Your task to perform on an android device: open app "Facebook Lite" (install if not already installed) Image 0: 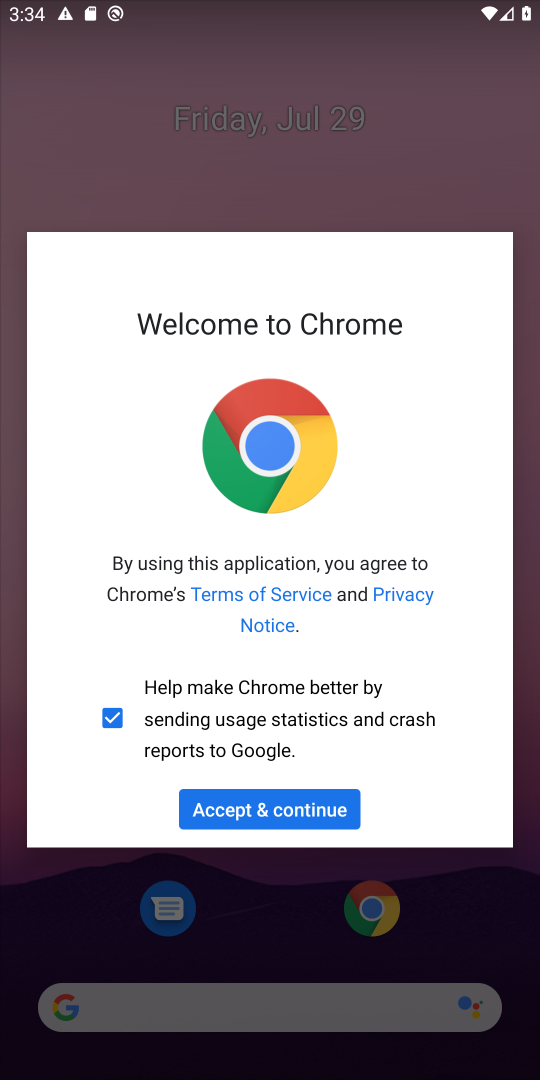
Step 0: press home button
Your task to perform on an android device: open app "Facebook Lite" (install if not already installed) Image 1: 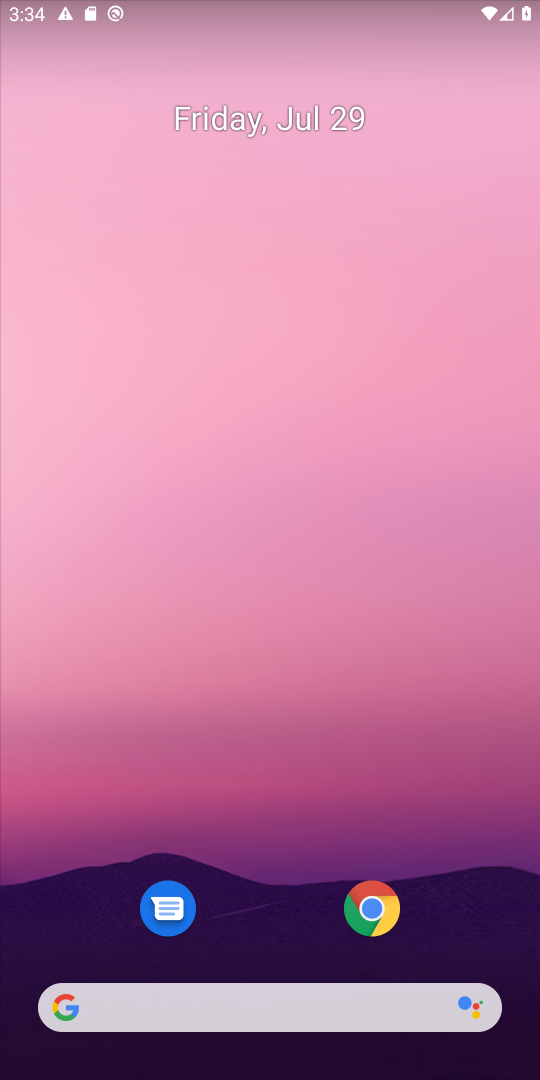
Step 1: drag from (296, 927) to (287, 218)
Your task to perform on an android device: open app "Facebook Lite" (install if not already installed) Image 2: 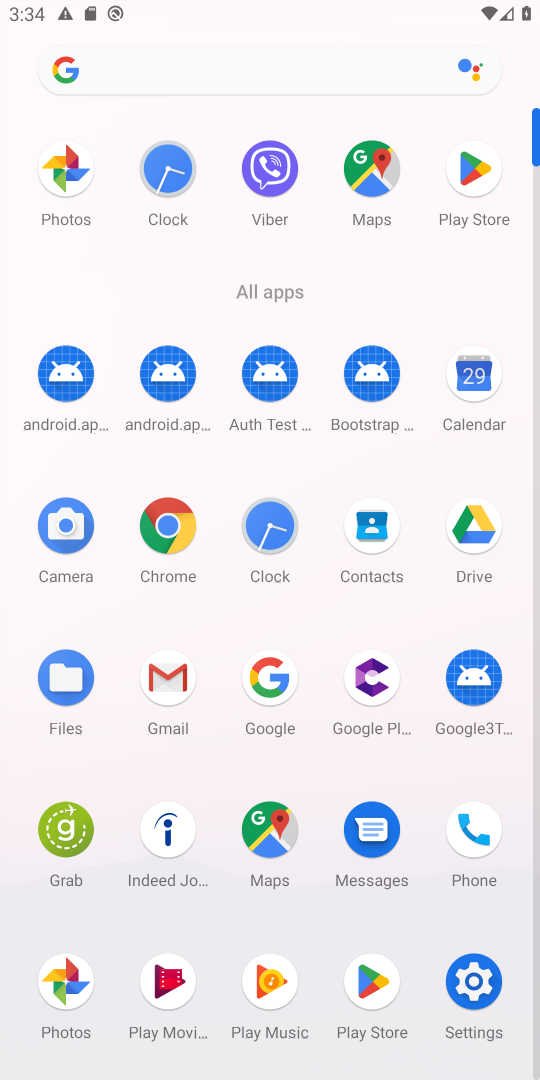
Step 2: click (363, 976)
Your task to perform on an android device: open app "Facebook Lite" (install if not already installed) Image 3: 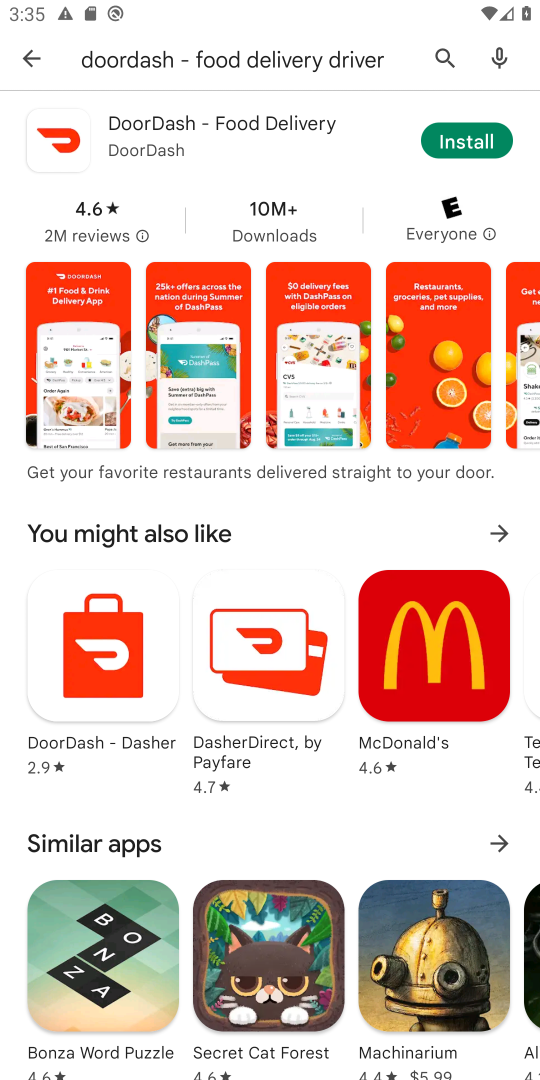
Step 3: click (433, 48)
Your task to perform on an android device: open app "Facebook Lite" (install if not already installed) Image 4: 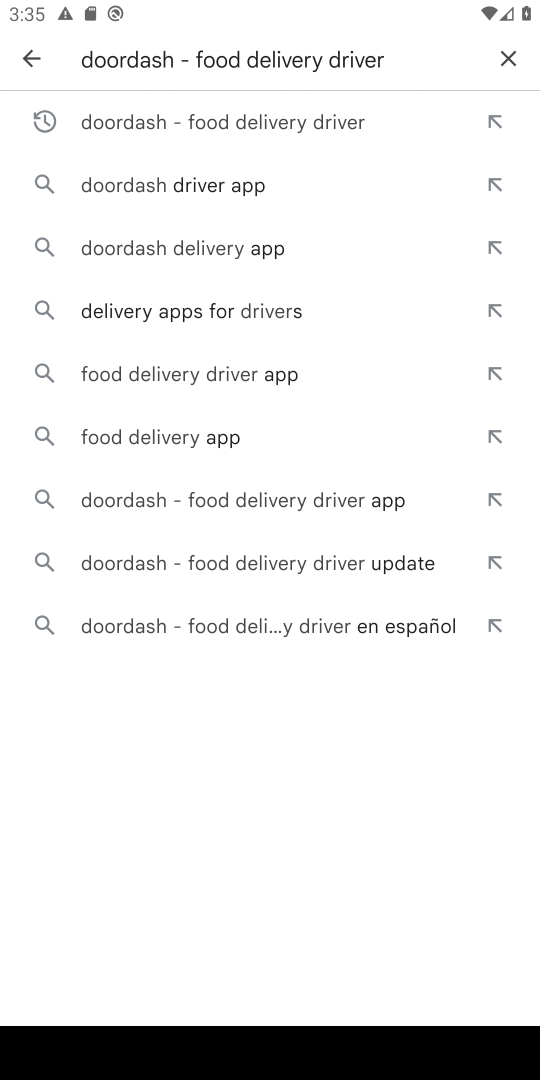
Step 4: click (505, 65)
Your task to perform on an android device: open app "Facebook Lite" (install if not already installed) Image 5: 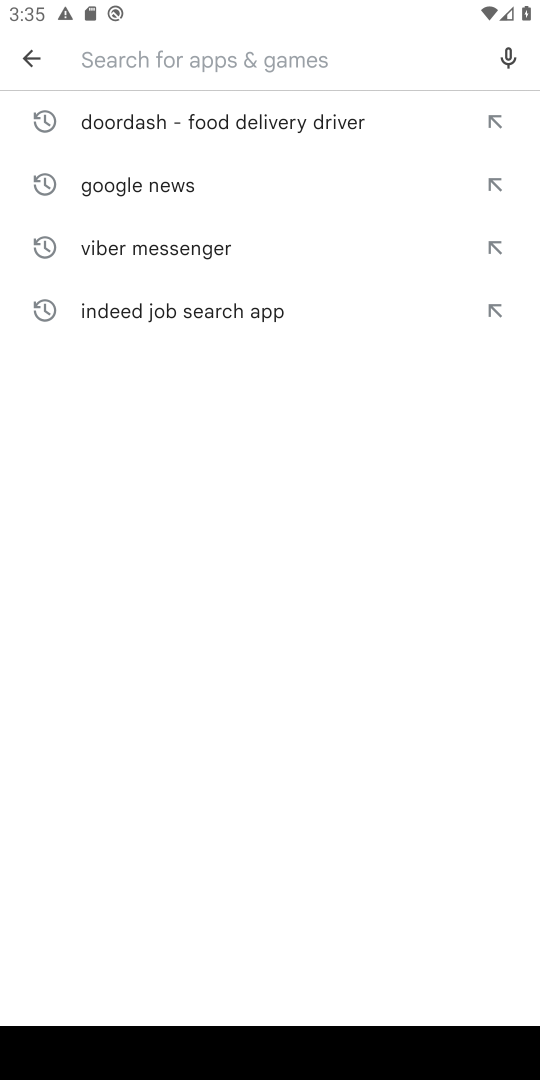
Step 5: type "Facebook Lite"
Your task to perform on an android device: open app "Facebook Lite" (install if not already installed) Image 6: 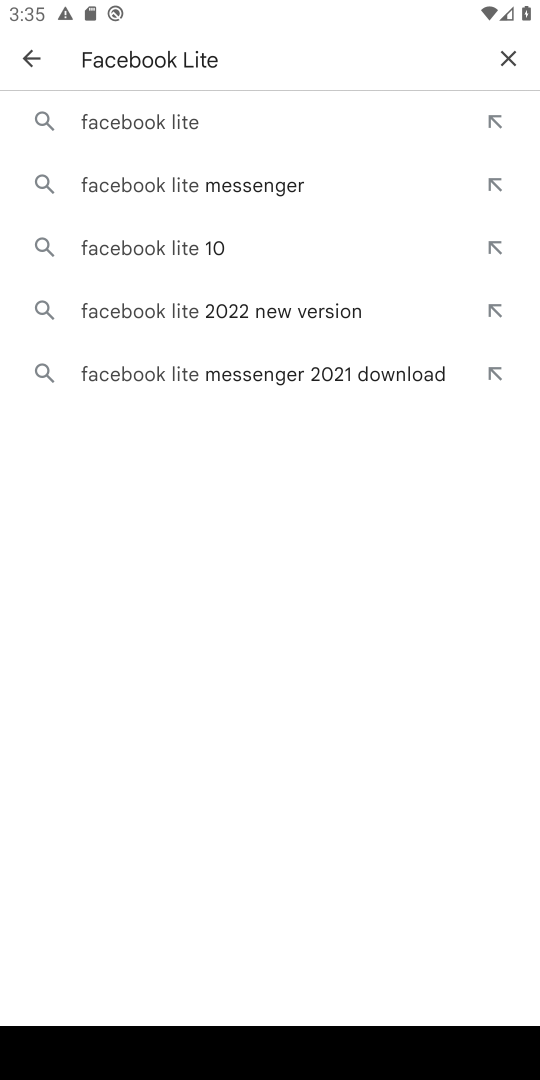
Step 6: click (177, 94)
Your task to perform on an android device: open app "Facebook Lite" (install if not already installed) Image 7: 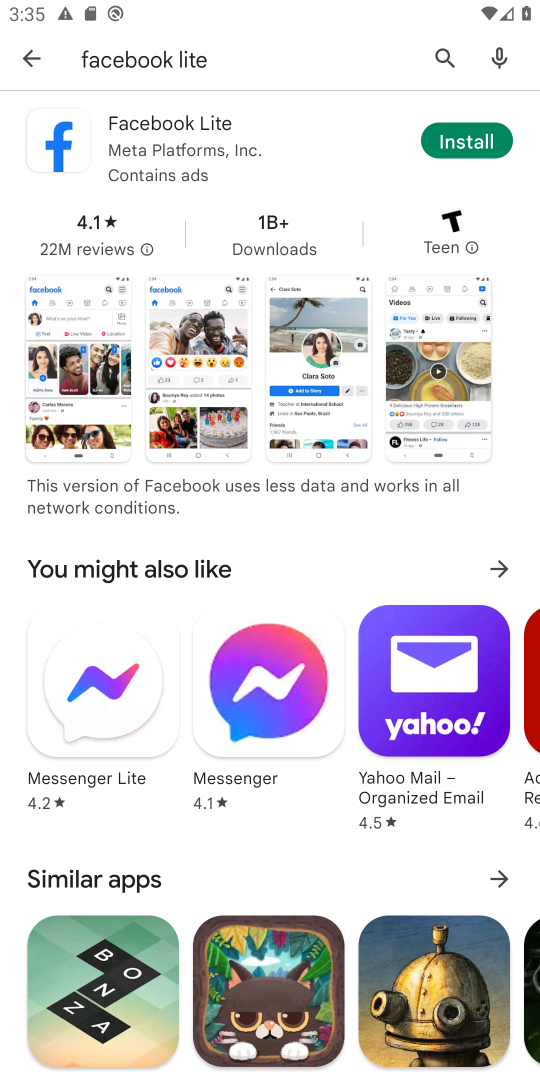
Step 7: click (458, 142)
Your task to perform on an android device: open app "Facebook Lite" (install if not already installed) Image 8: 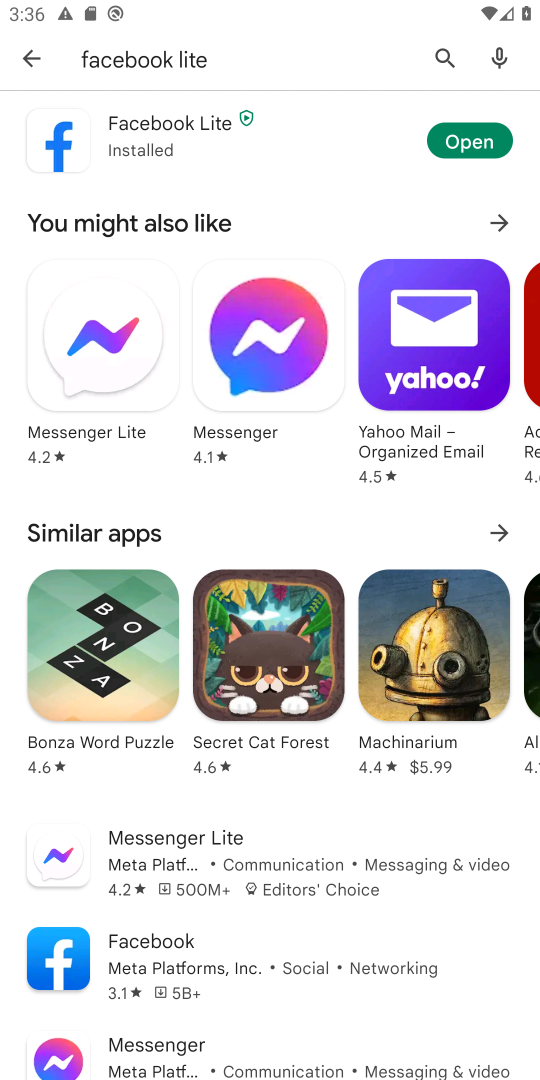
Step 8: click (459, 138)
Your task to perform on an android device: open app "Facebook Lite" (install if not already installed) Image 9: 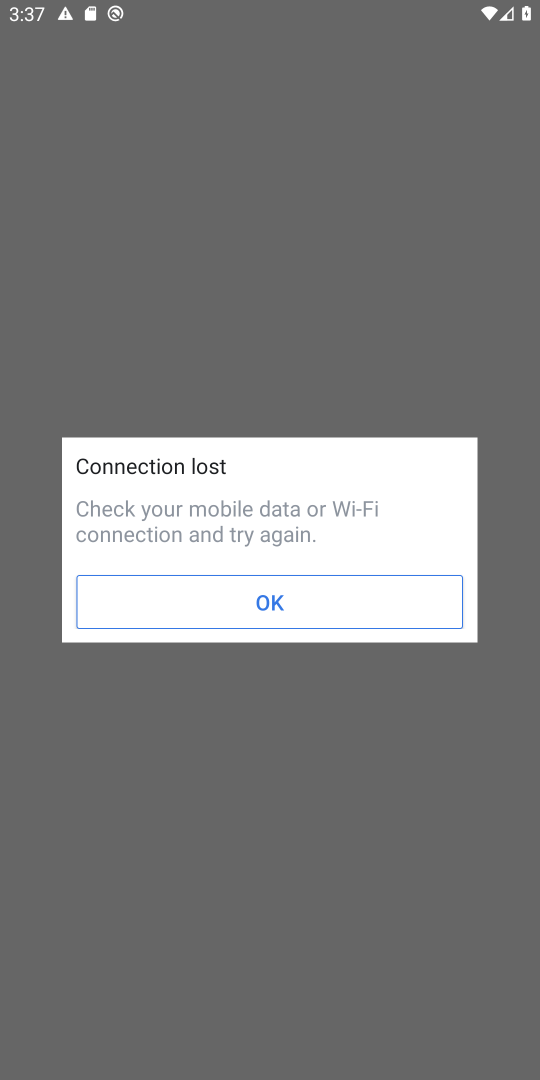
Step 9: task complete